Your task to perform on an android device: Open eBay Image 0: 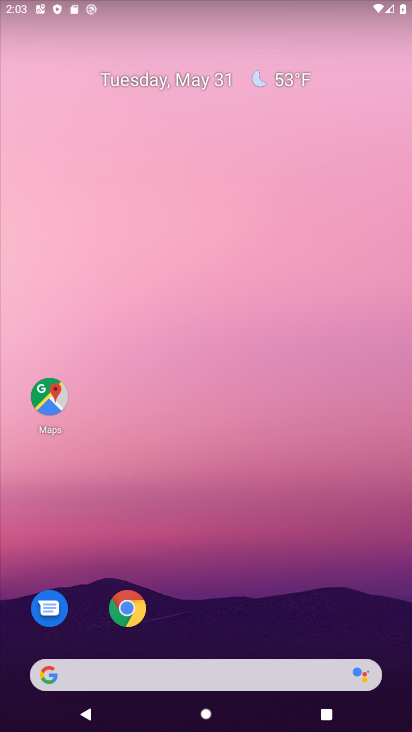
Step 0: click (267, 674)
Your task to perform on an android device: Open eBay Image 1: 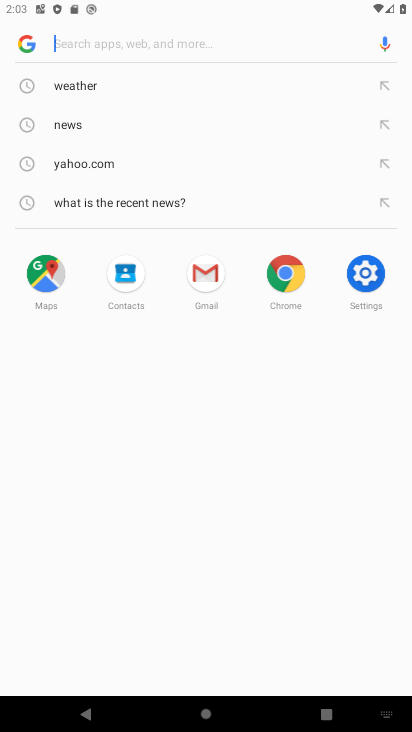
Step 1: type " eBay"
Your task to perform on an android device: Open eBay Image 2: 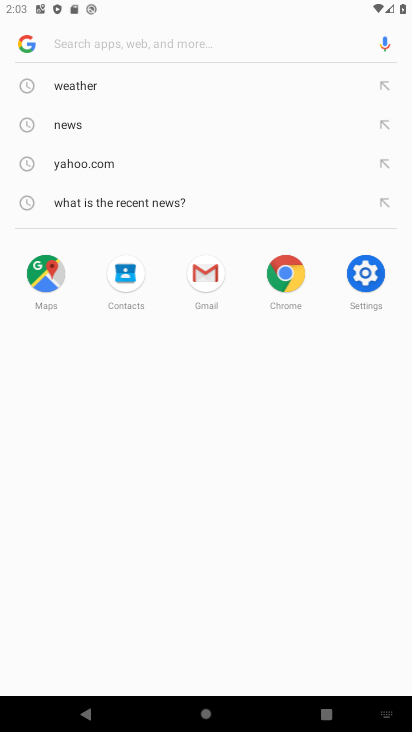
Step 2: click (147, 35)
Your task to perform on an android device: Open eBay Image 3: 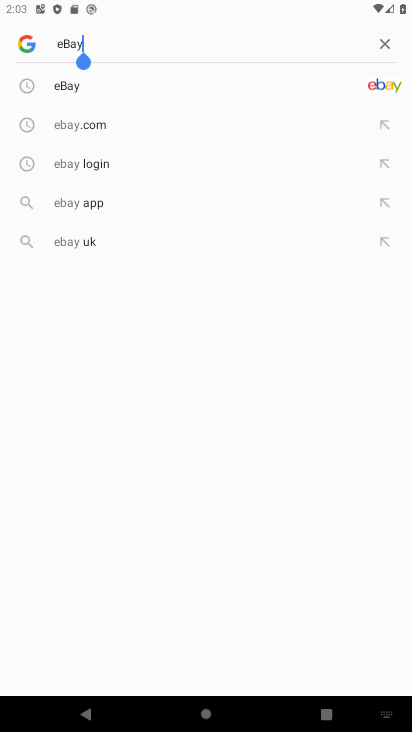
Step 3: click (53, 85)
Your task to perform on an android device: Open eBay Image 4: 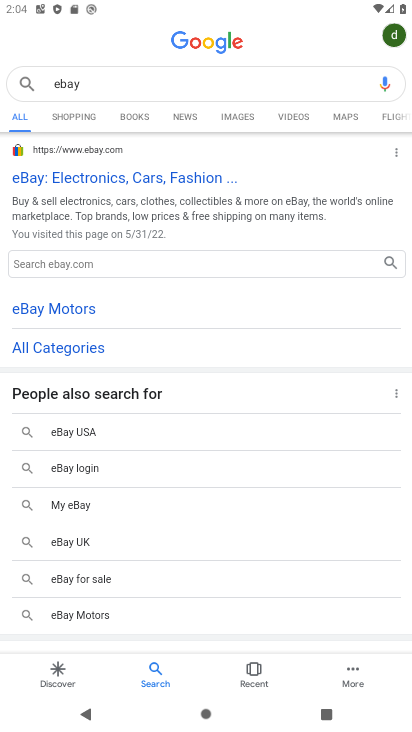
Step 4: click (89, 175)
Your task to perform on an android device: Open eBay Image 5: 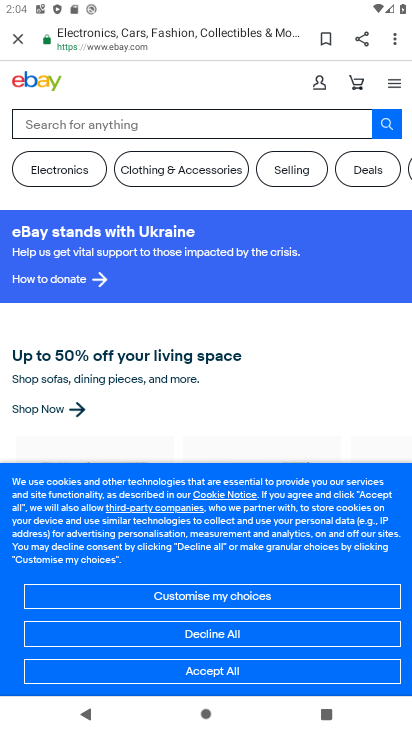
Step 5: task complete